Your task to perform on an android device: Open my contact list Image 0: 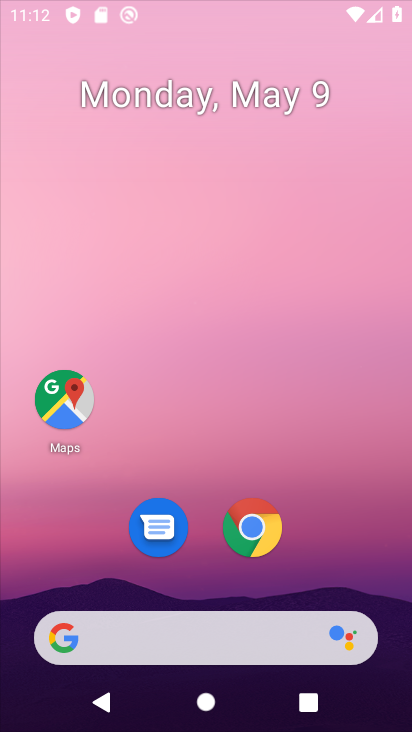
Step 0: drag from (153, 619) to (251, 92)
Your task to perform on an android device: Open my contact list Image 1: 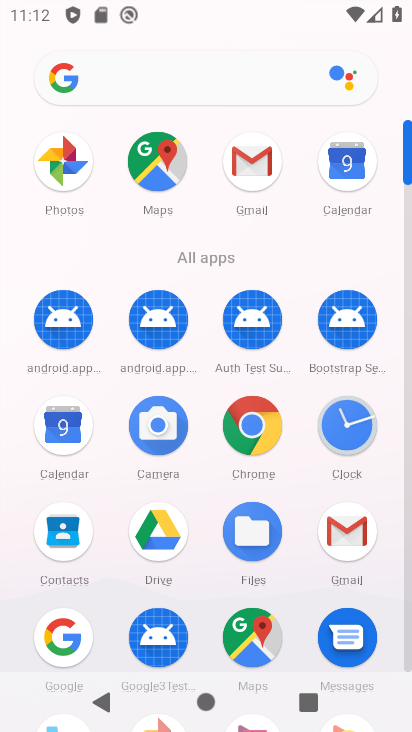
Step 1: click (67, 528)
Your task to perform on an android device: Open my contact list Image 2: 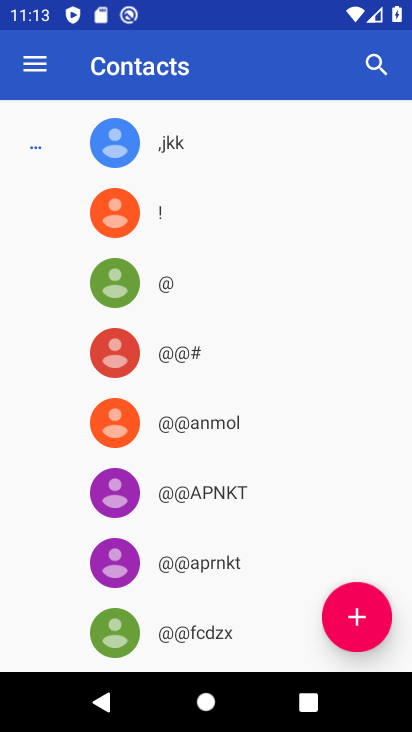
Step 2: task complete